Your task to perform on an android device: open a bookmark in the chrome app Image 0: 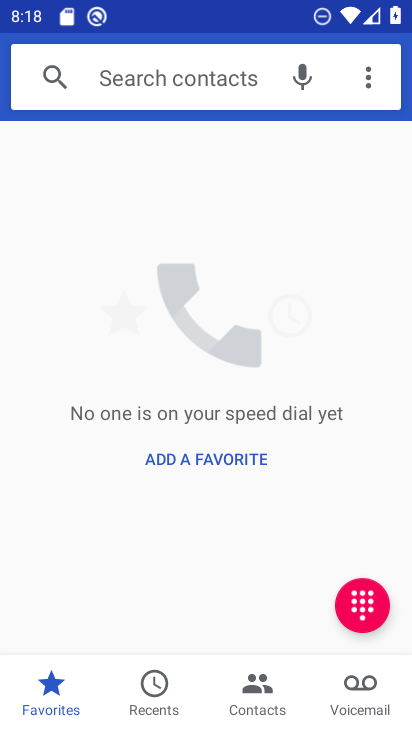
Step 0: press home button
Your task to perform on an android device: open a bookmark in the chrome app Image 1: 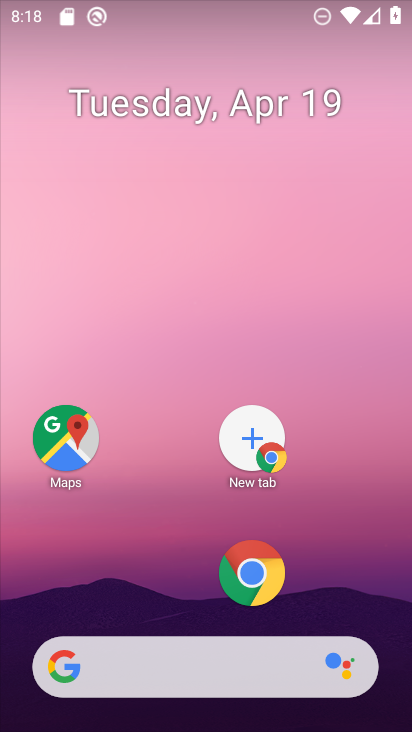
Step 1: click (250, 568)
Your task to perform on an android device: open a bookmark in the chrome app Image 2: 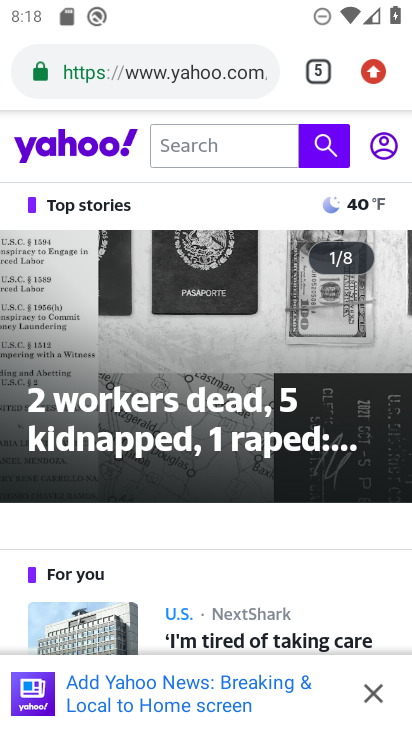
Step 2: click (376, 73)
Your task to perform on an android device: open a bookmark in the chrome app Image 3: 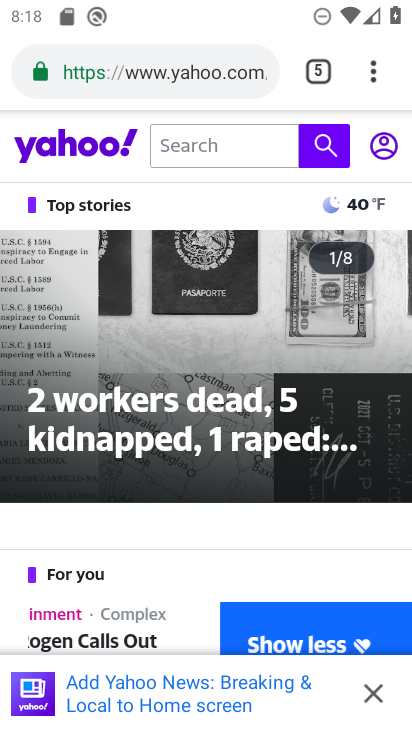
Step 3: click (376, 73)
Your task to perform on an android device: open a bookmark in the chrome app Image 4: 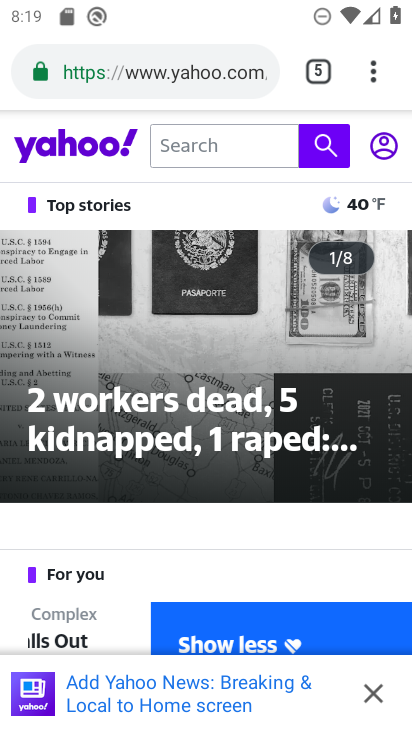
Step 4: click (373, 68)
Your task to perform on an android device: open a bookmark in the chrome app Image 5: 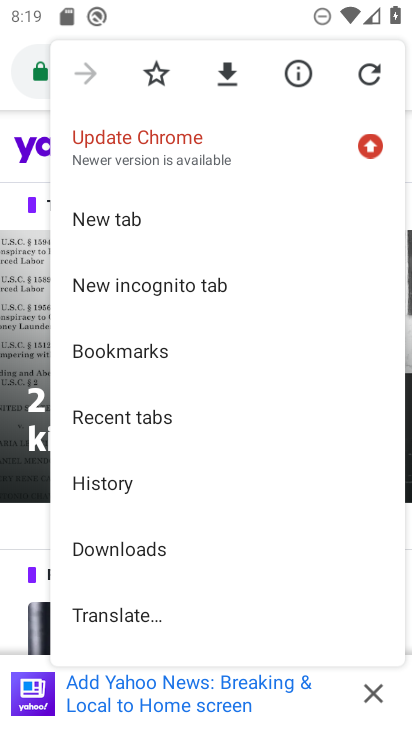
Step 5: click (101, 357)
Your task to perform on an android device: open a bookmark in the chrome app Image 6: 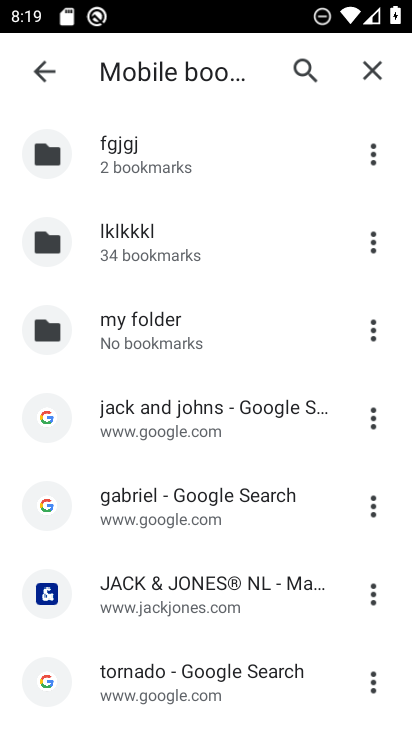
Step 6: click (138, 671)
Your task to perform on an android device: open a bookmark in the chrome app Image 7: 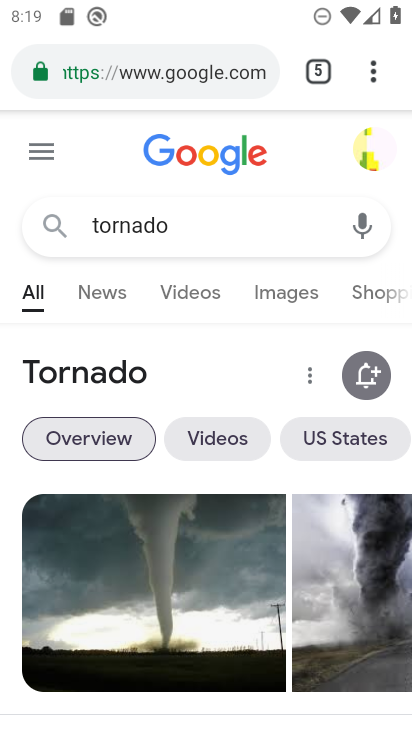
Step 7: task complete